Your task to perform on an android device: Clear the cart on newegg. Add "alienware area 51" to the cart on newegg Image 0: 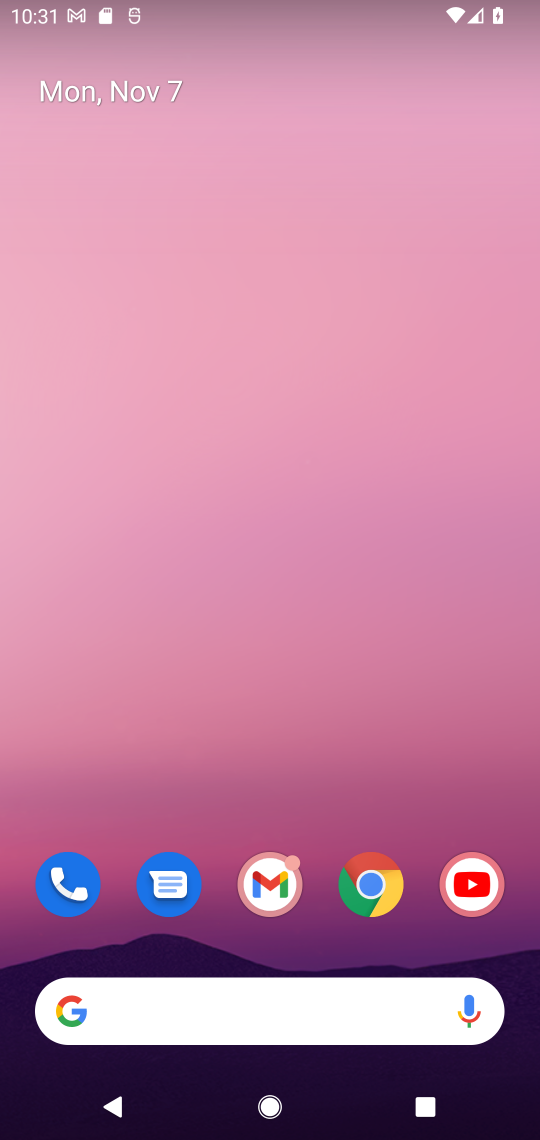
Step 0: click (375, 877)
Your task to perform on an android device: Clear the cart on newegg. Add "alienware area 51" to the cart on newegg Image 1: 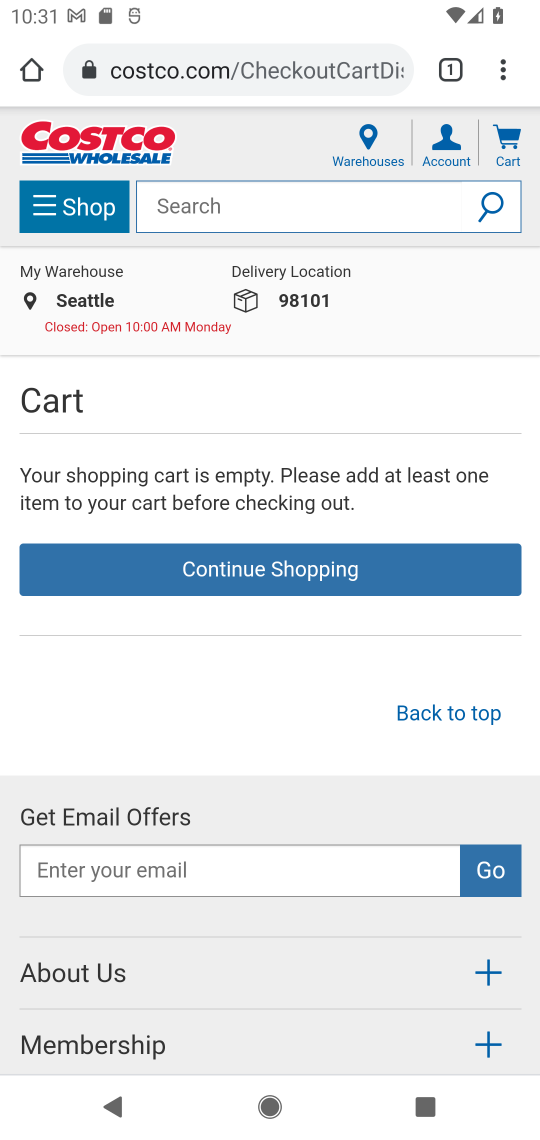
Step 1: click (207, 58)
Your task to perform on an android device: Clear the cart on newegg. Add "alienware area 51" to the cart on newegg Image 2: 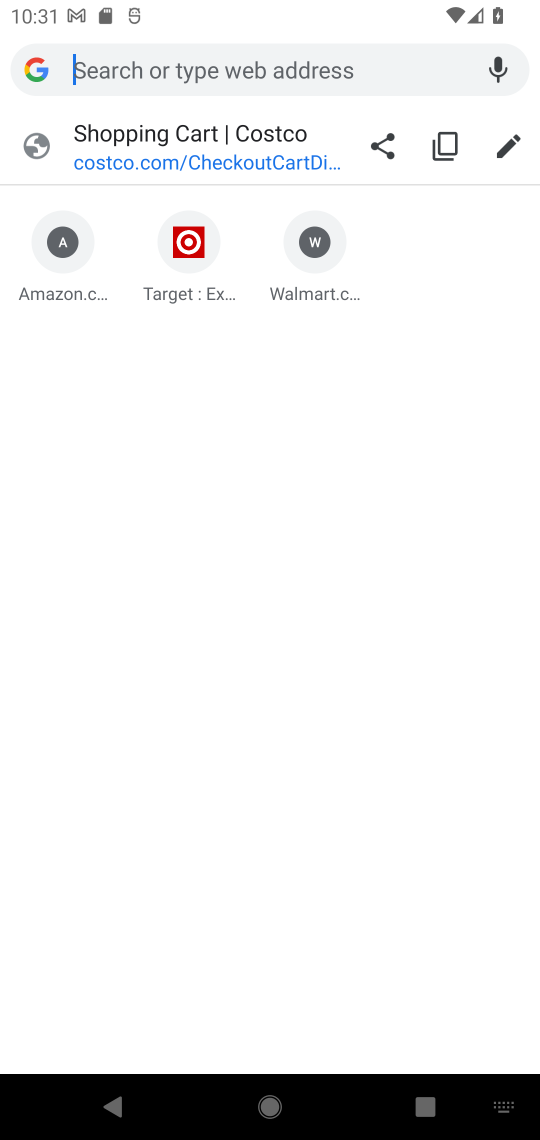
Step 2: type "newegg"
Your task to perform on an android device: Clear the cart on newegg. Add "alienware area 51" to the cart on newegg Image 3: 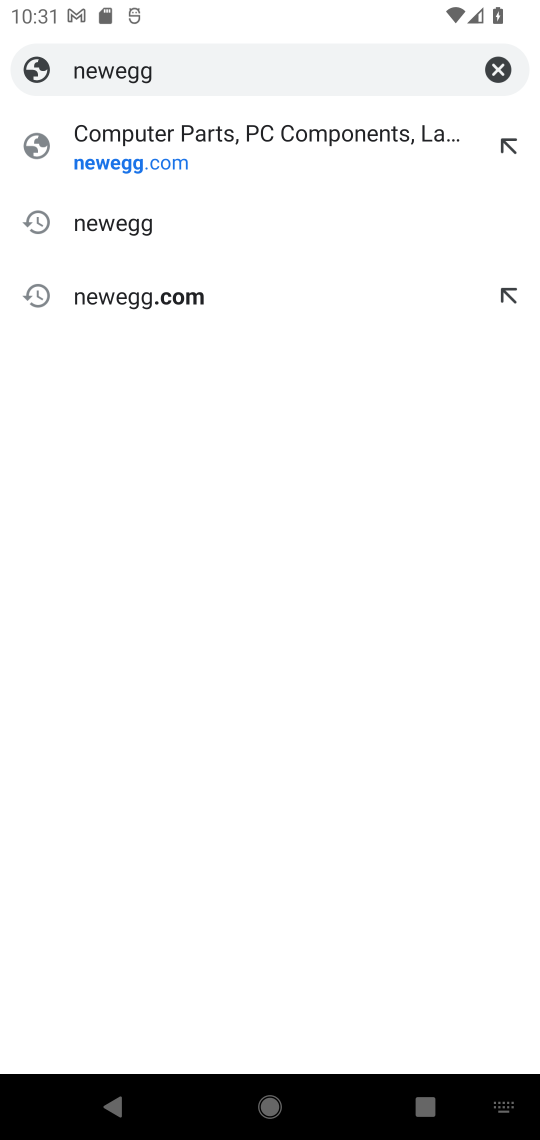
Step 3: click (154, 289)
Your task to perform on an android device: Clear the cart on newegg. Add "alienware area 51" to the cart on newegg Image 4: 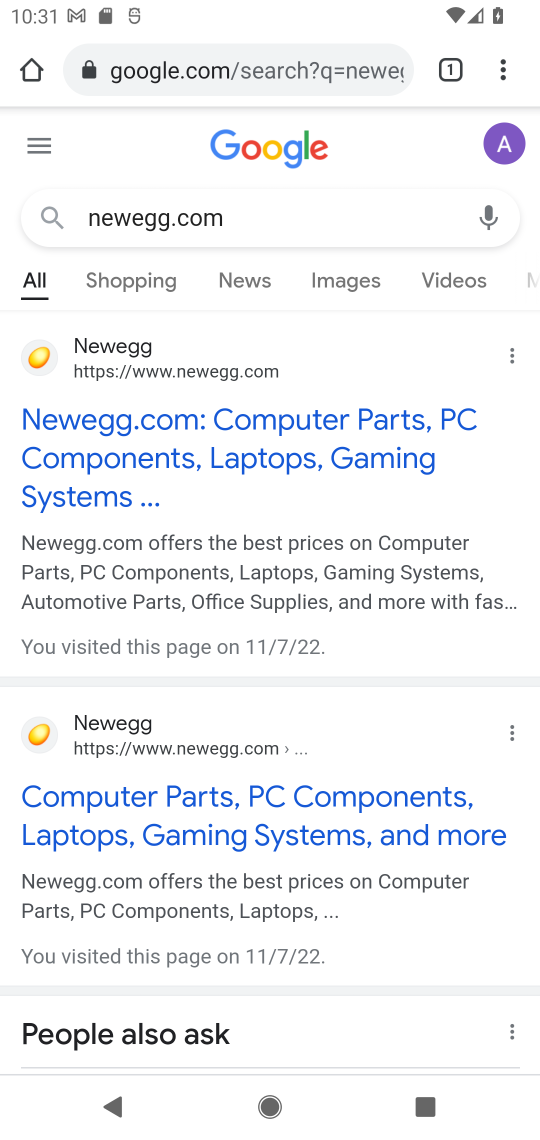
Step 4: click (196, 374)
Your task to perform on an android device: Clear the cart on newegg. Add "alienware area 51" to the cart on newegg Image 5: 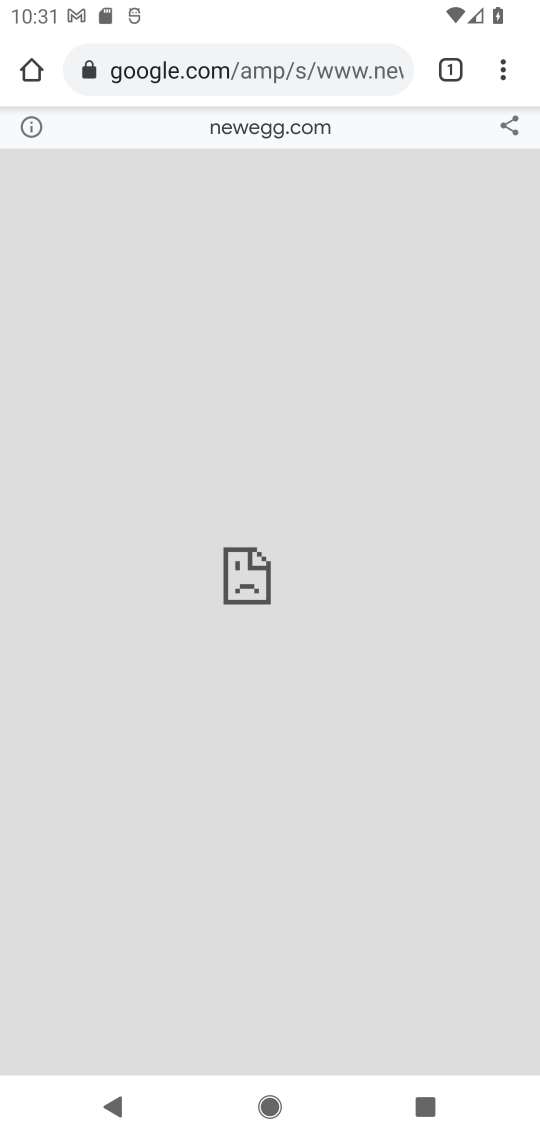
Step 5: press back button
Your task to perform on an android device: Clear the cart on newegg. Add "alienware area 51" to the cart on newegg Image 6: 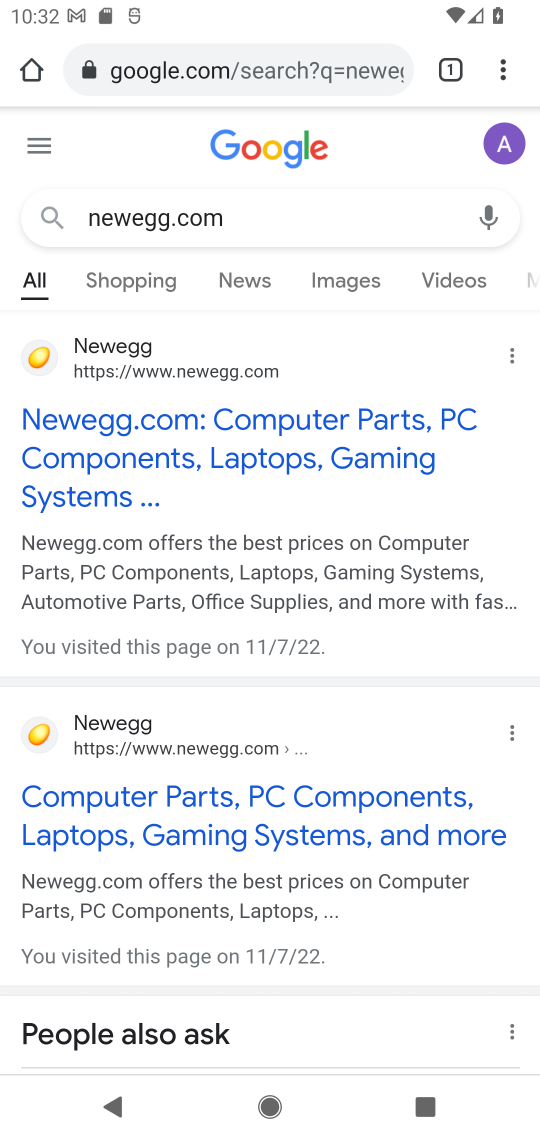
Step 6: click (172, 747)
Your task to perform on an android device: Clear the cart on newegg. Add "alienware area 51" to the cart on newegg Image 7: 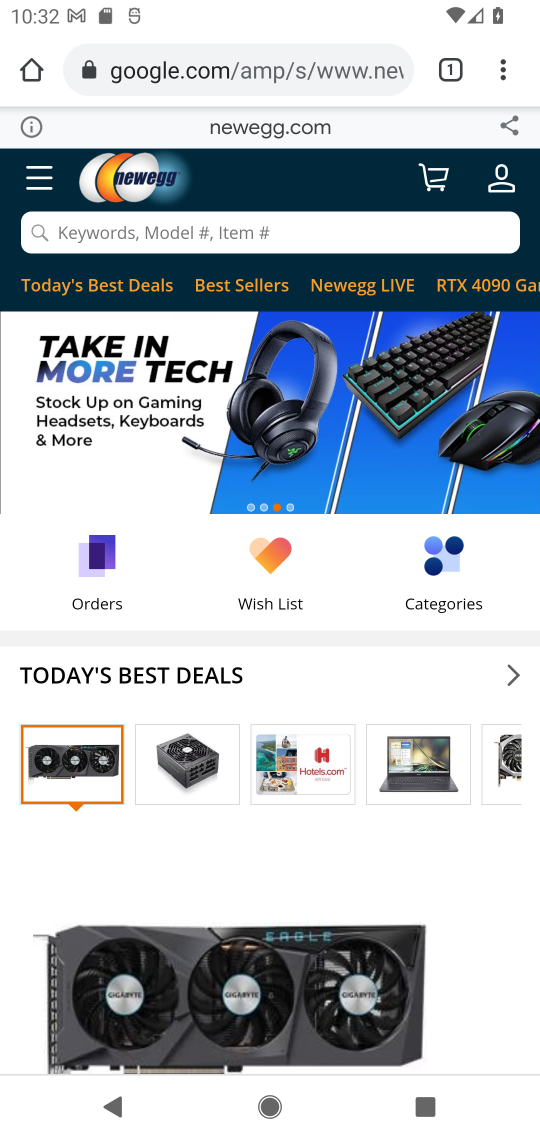
Step 7: click (390, 238)
Your task to perform on an android device: Clear the cart on newegg. Add "alienware area 51" to the cart on newegg Image 8: 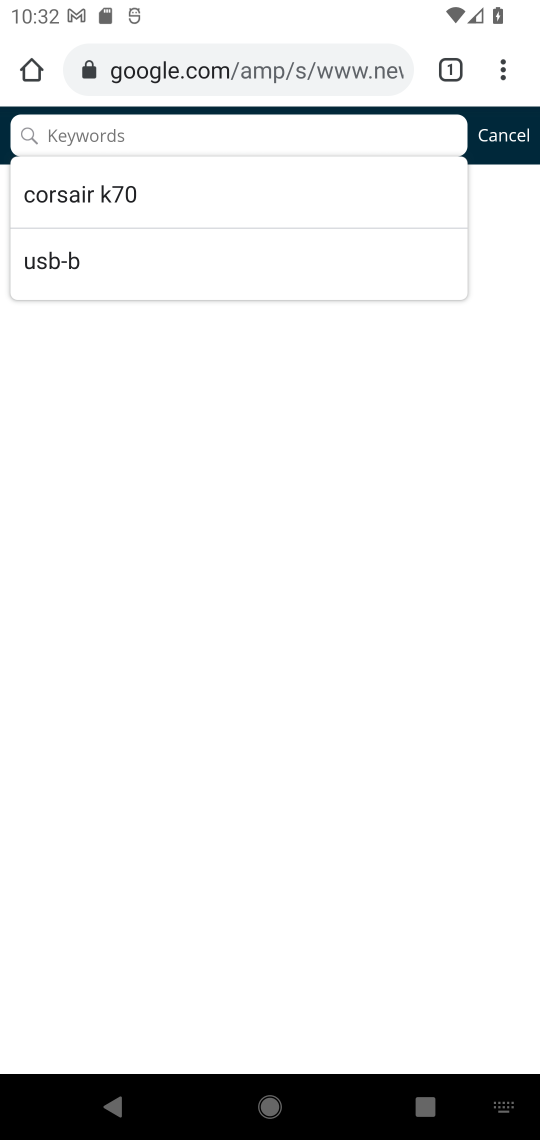
Step 8: type "alienware area 51"
Your task to perform on an android device: Clear the cart on newegg. Add "alienware area 51" to the cart on newegg Image 9: 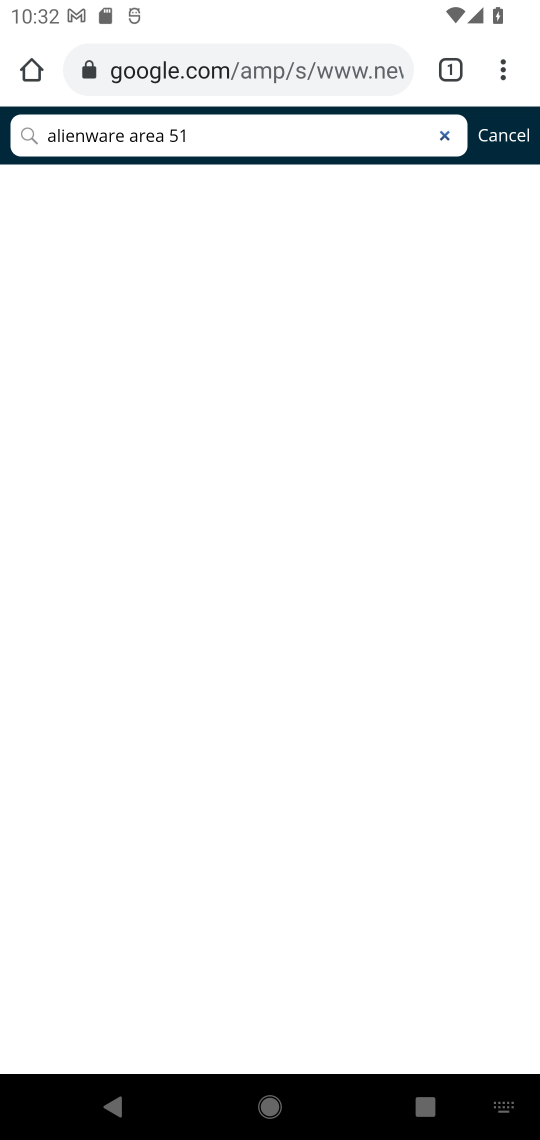
Step 9: click (409, 361)
Your task to perform on an android device: Clear the cart on newegg. Add "alienware area 51" to the cart on newegg Image 10: 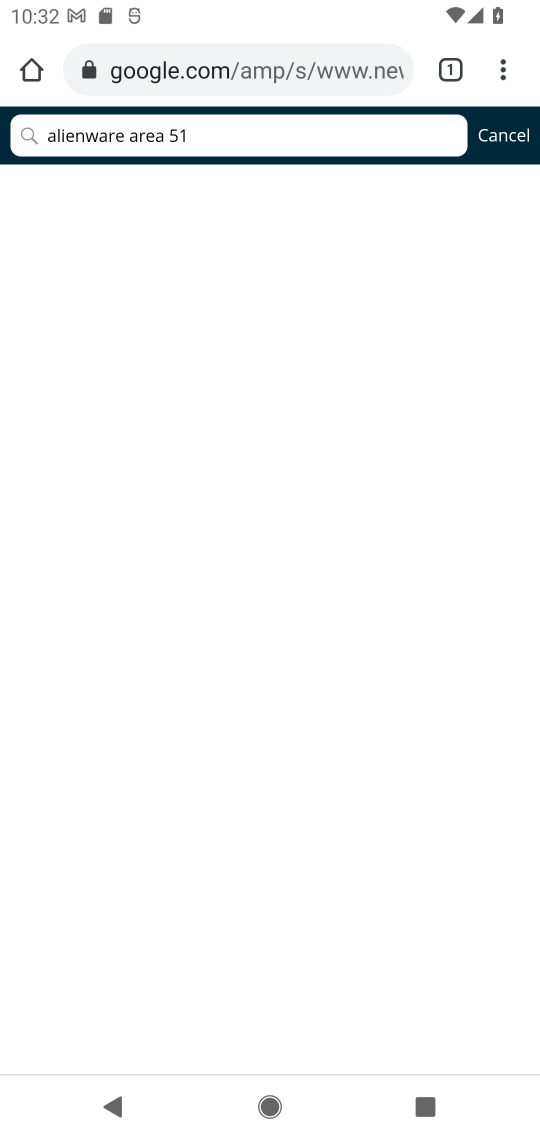
Step 10: task complete